Your task to perform on an android device: Toggle the flashlight Image 0: 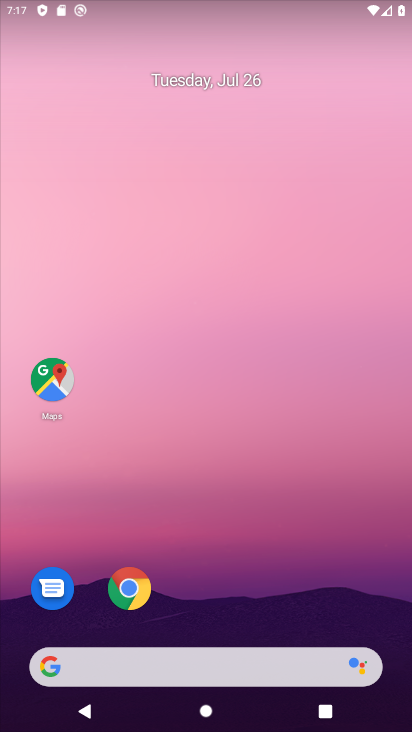
Step 0: task impossible